Your task to perform on an android device: install app "Microsoft Excel" Image 0: 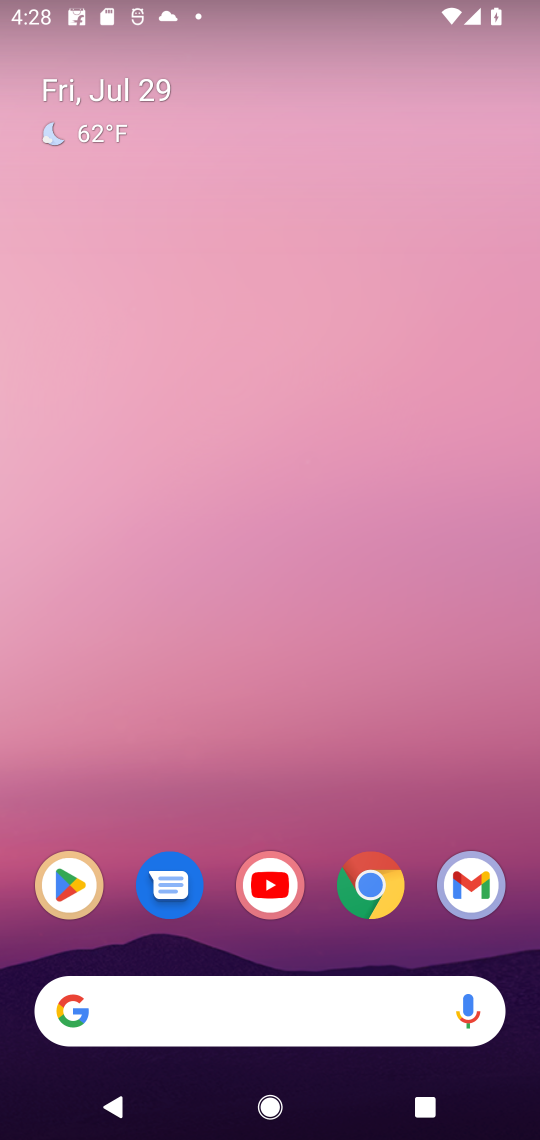
Step 0: click (80, 891)
Your task to perform on an android device: install app "Microsoft Excel" Image 1: 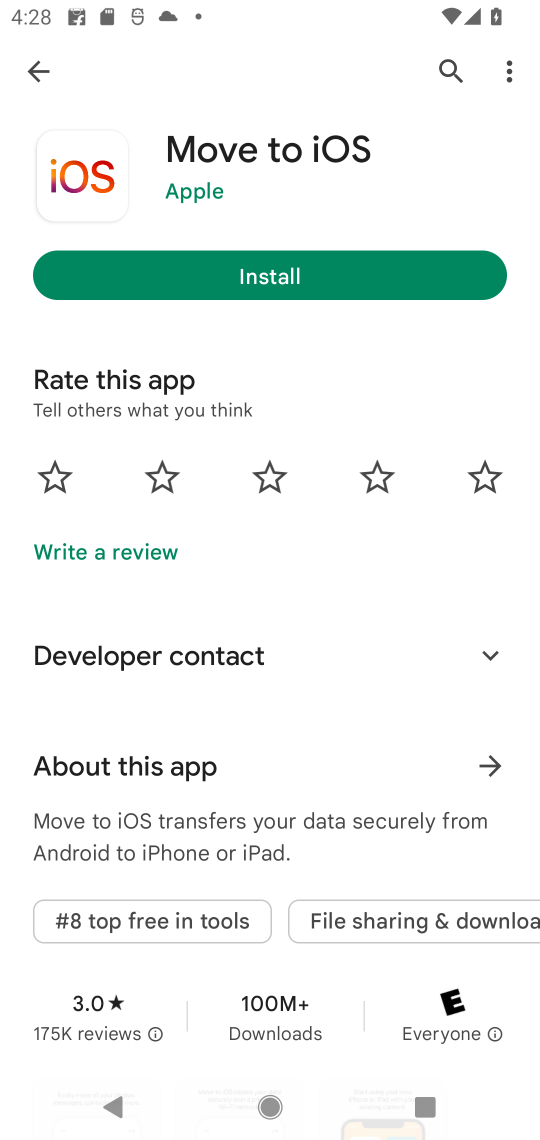
Step 1: click (445, 71)
Your task to perform on an android device: install app "Microsoft Excel" Image 2: 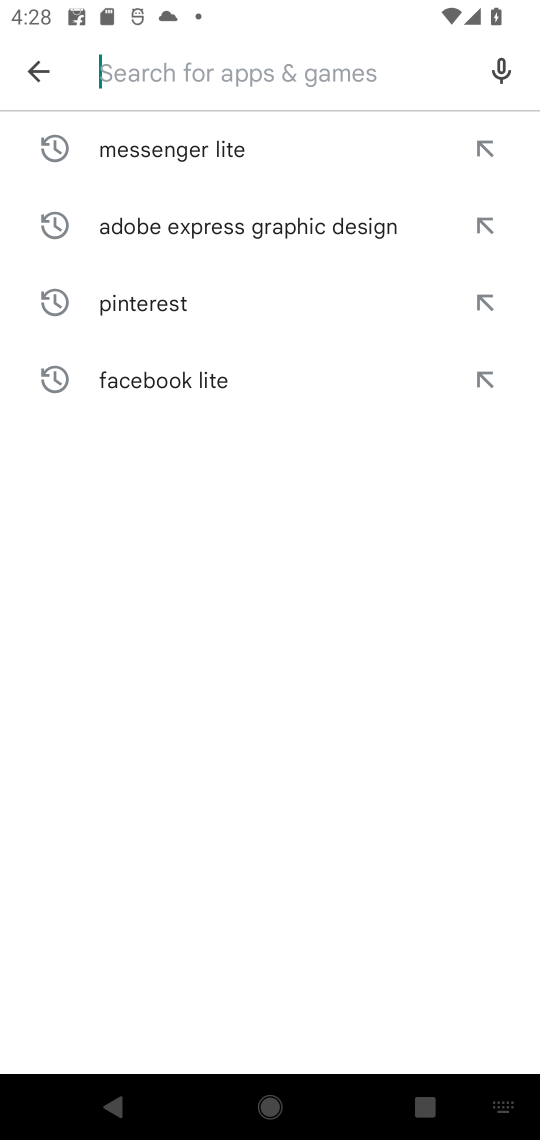
Step 2: type "Microsoft Excel"
Your task to perform on an android device: install app "Microsoft Excel" Image 3: 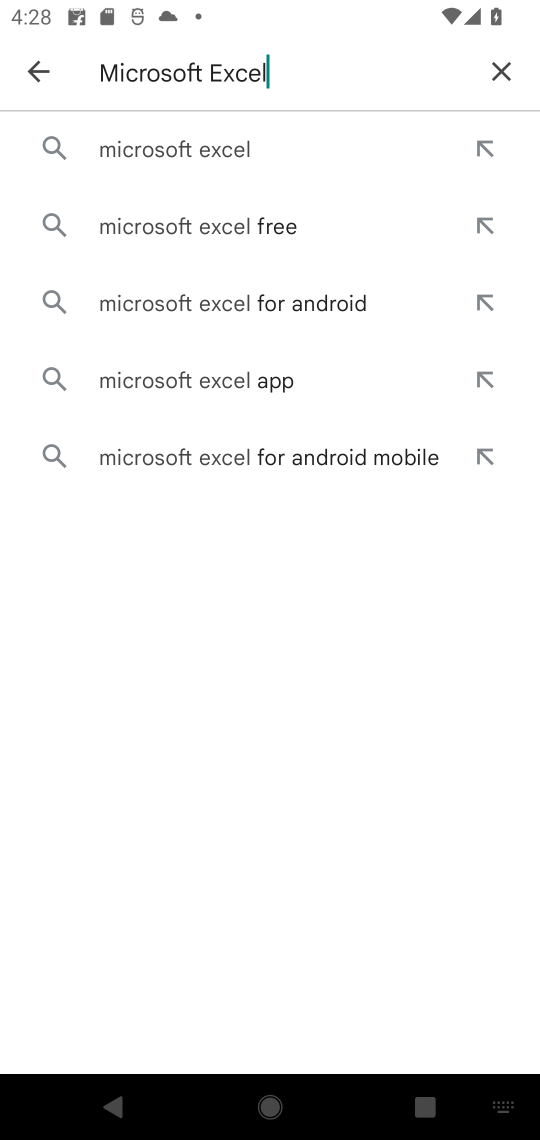
Step 3: click (242, 146)
Your task to perform on an android device: install app "Microsoft Excel" Image 4: 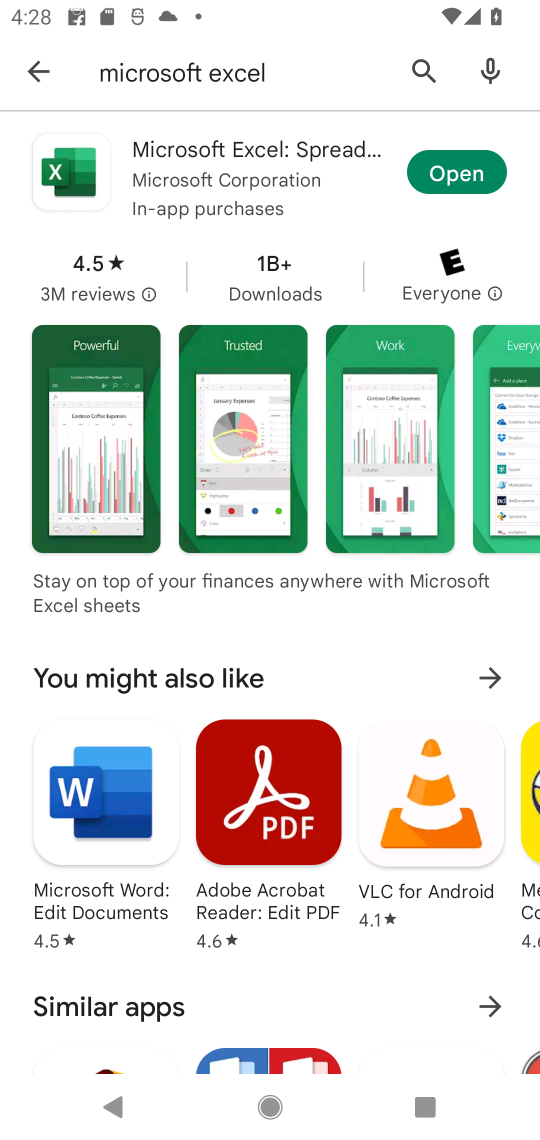
Step 4: task complete